Your task to perform on an android device: Go to display settings Image 0: 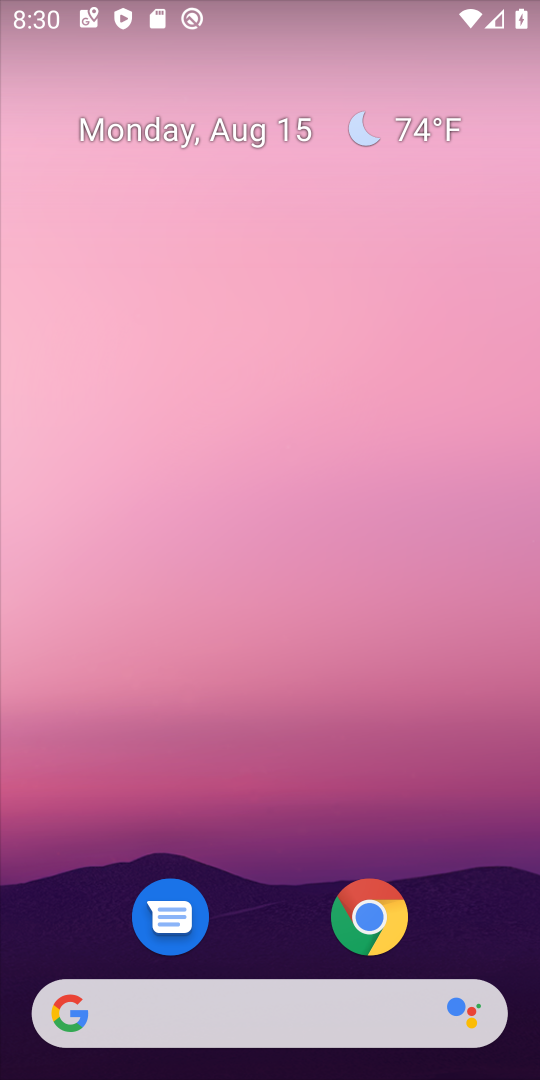
Step 0: drag from (285, 874) to (356, 0)
Your task to perform on an android device: Go to display settings Image 1: 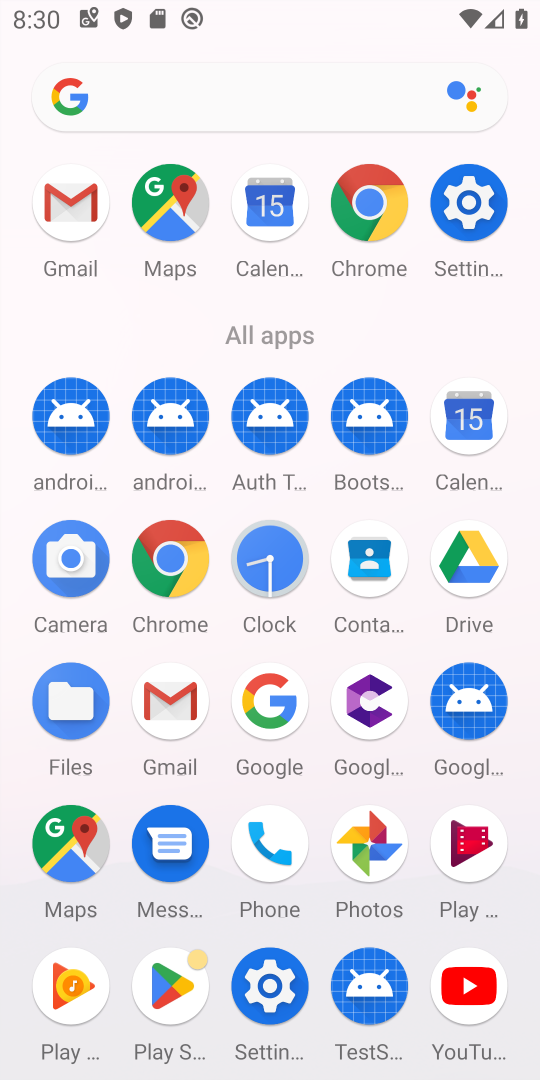
Step 1: click (477, 256)
Your task to perform on an android device: Go to display settings Image 2: 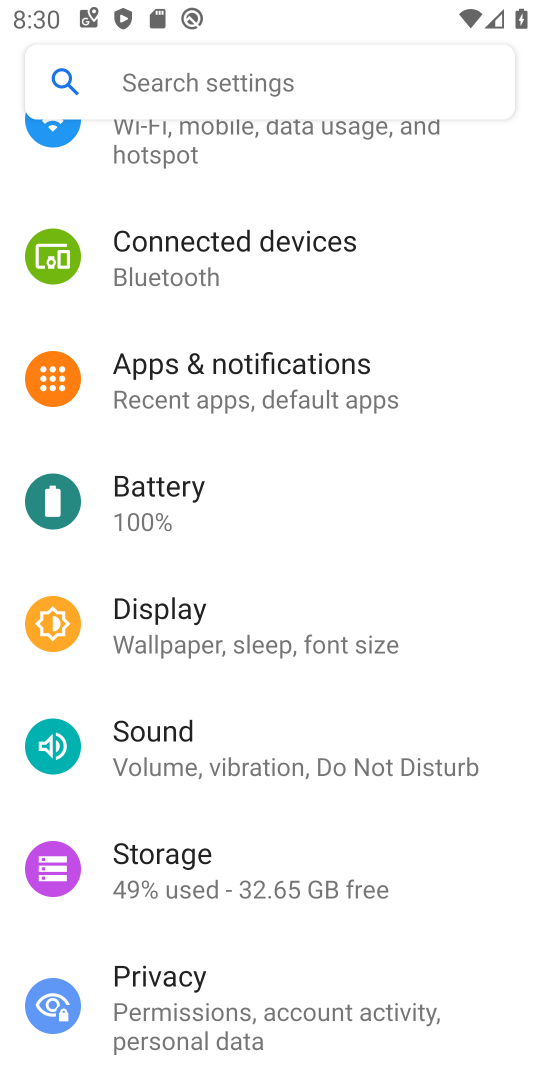
Step 2: click (239, 616)
Your task to perform on an android device: Go to display settings Image 3: 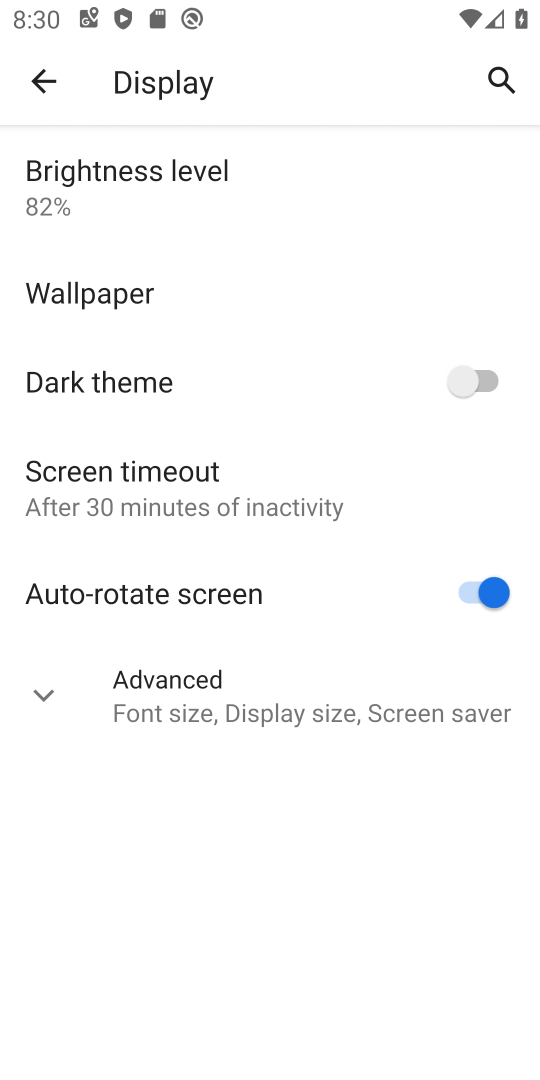
Step 3: click (41, 689)
Your task to perform on an android device: Go to display settings Image 4: 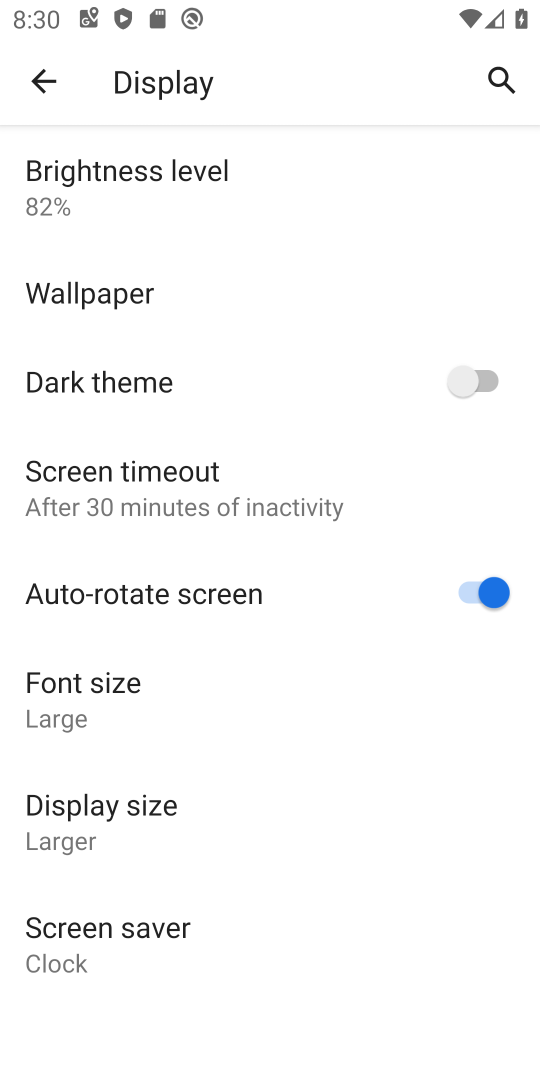
Step 4: task complete